Your task to perform on an android device: turn on priority inbox in the gmail app Image 0: 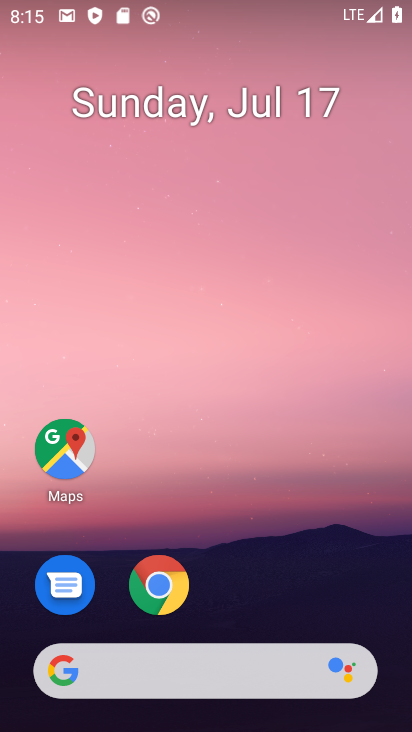
Step 0: press home button
Your task to perform on an android device: turn on priority inbox in the gmail app Image 1: 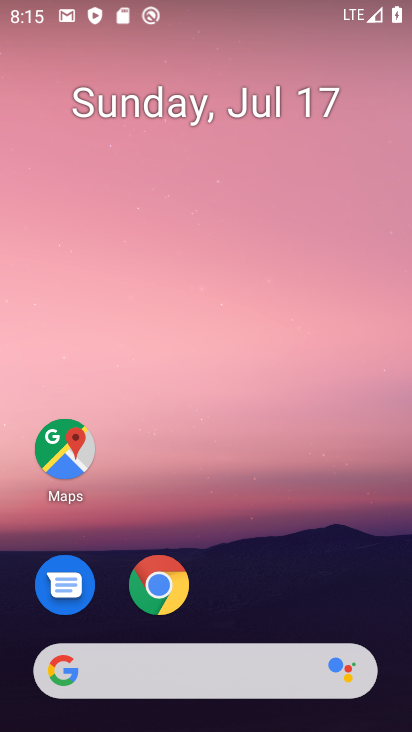
Step 1: drag from (150, 654) to (116, 72)
Your task to perform on an android device: turn on priority inbox in the gmail app Image 2: 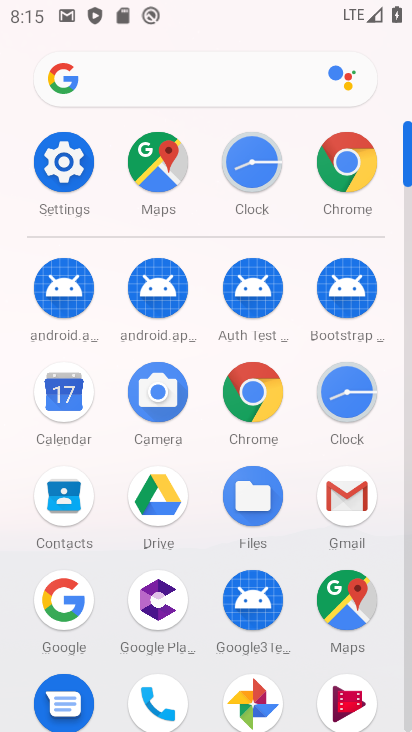
Step 2: click (348, 498)
Your task to perform on an android device: turn on priority inbox in the gmail app Image 3: 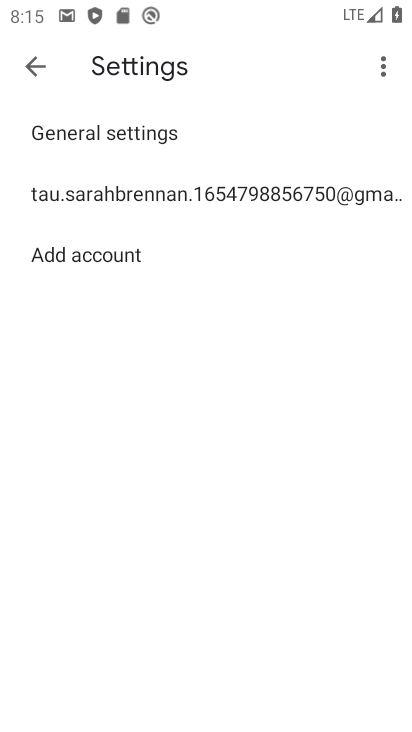
Step 3: click (254, 200)
Your task to perform on an android device: turn on priority inbox in the gmail app Image 4: 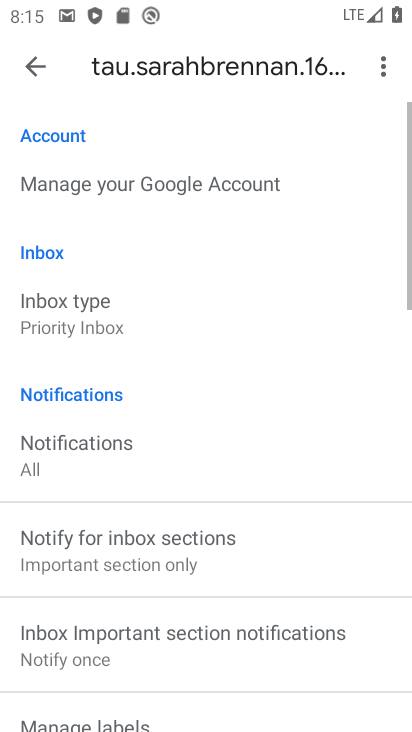
Step 4: click (92, 313)
Your task to perform on an android device: turn on priority inbox in the gmail app Image 5: 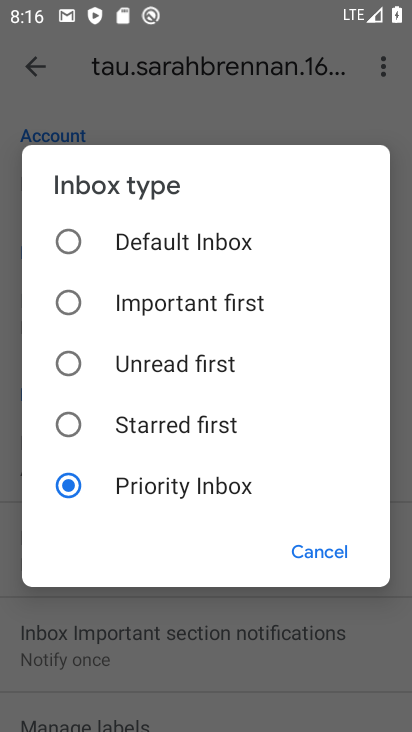
Step 5: task complete